Your task to perform on an android device: open app "Google Sheets" Image 0: 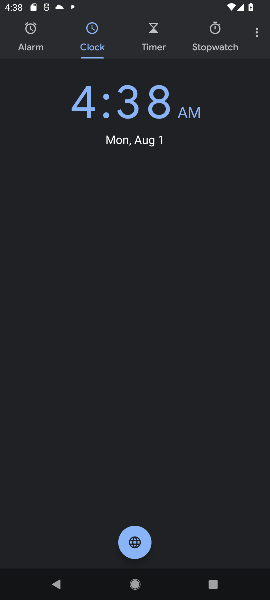
Step 0: press home button
Your task to perform on an android device: open app "Google Sheets" Image 1: 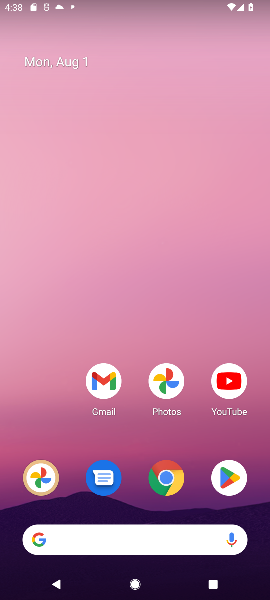
Step 1: click (236, 485)
Your task to perform on an android device: open app "Google Sheets" Image 2: 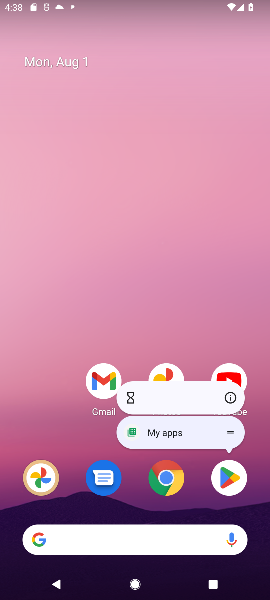
Step 2: click (225, 473)
Your task to perform on an android device: open app "Google Sheets" Image 3: 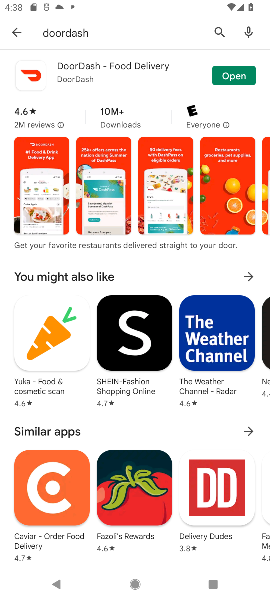
Step 3: click (224, 20)
Your task to perform on an android device: open app "Google Sheets" Image 4: 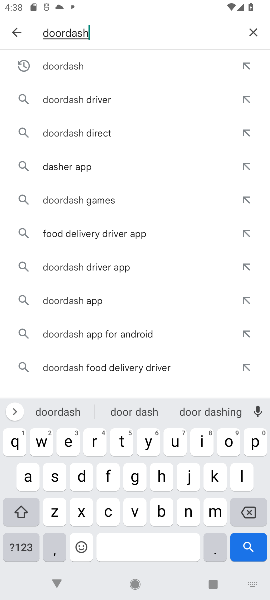
Step 4: click (251, 32)
Your task to perform on an android device: open app "Google Sheets" Image 5: 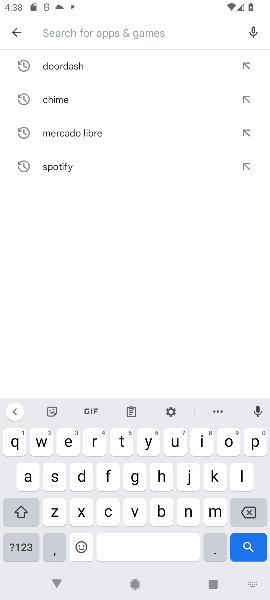
Step 5: type "google sheet"
Your task to perform on an android device: open app "Google Sheets" Image 6: 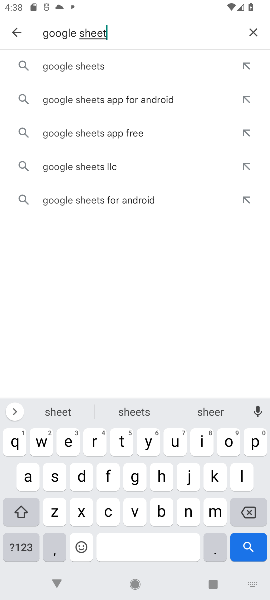
Step 6: click (105, 65)
Your task to perform on an android device: open app "Google Sheets" Image 7: 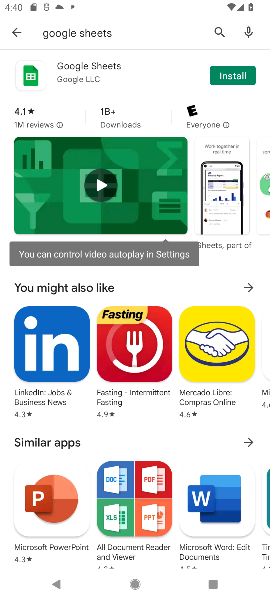
Step 7: task complete